Your task to perform on an android device: Is it going to rain tomorrow? Image 0: 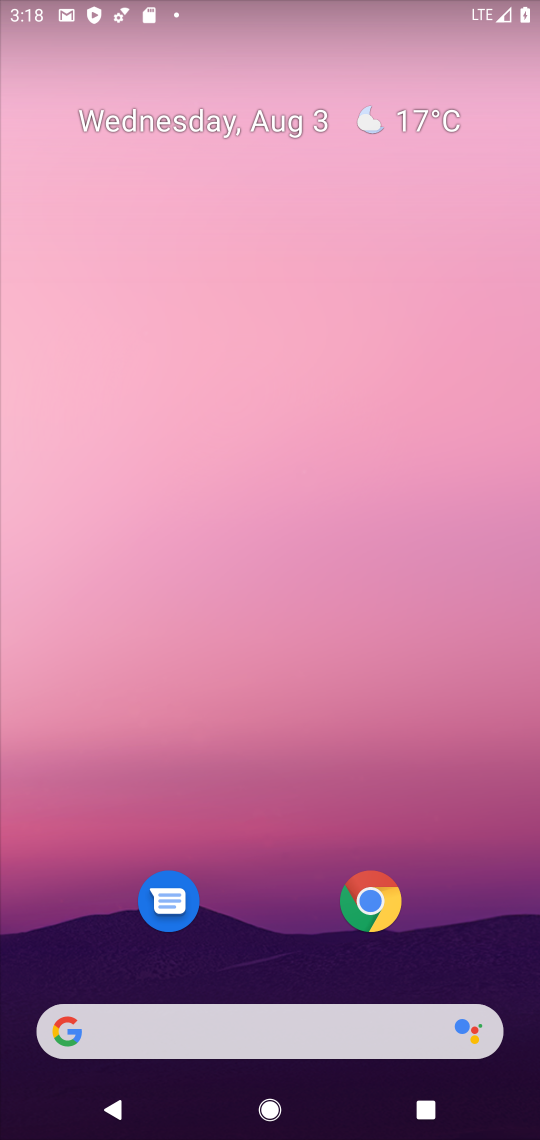
Step 0: drag from (144, 966) to (189, 436)
Your task to perform on an android device: Is it going to rain tomorrow? Image 1: 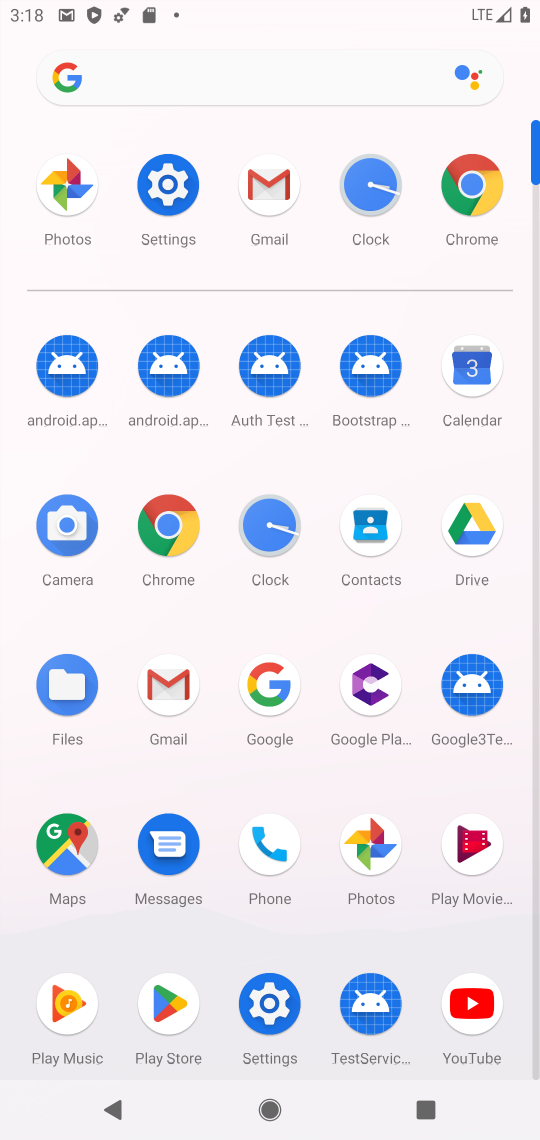
Step 1: click (468, 176)
Your task to perform on an android device: Is it going to rain tomorrow? Image 2: 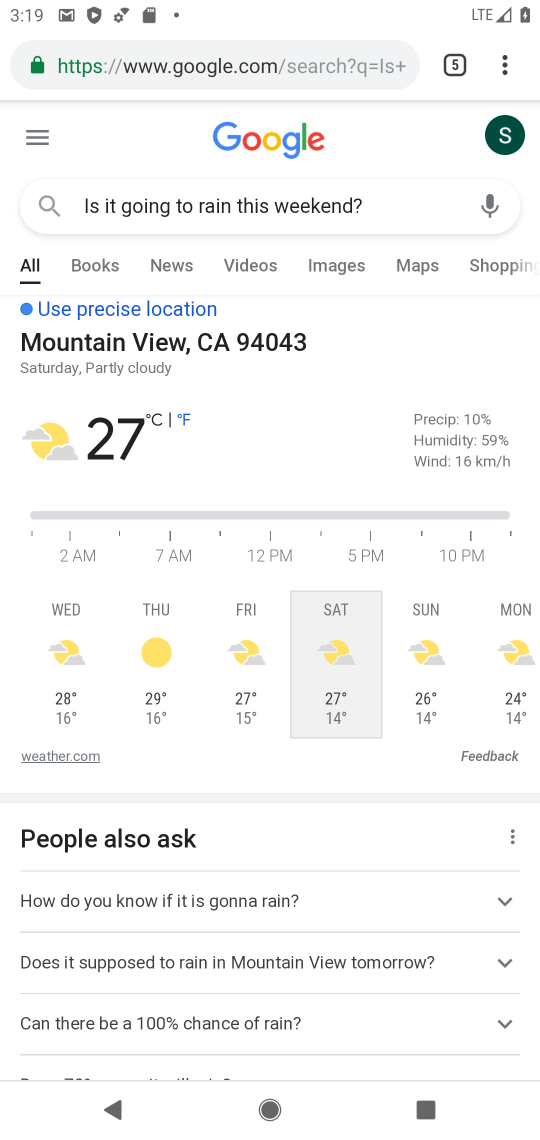
Step 2: click (409, 197)
Your task to perform on an android device: Is it going to rain tomorrow? Image 3: 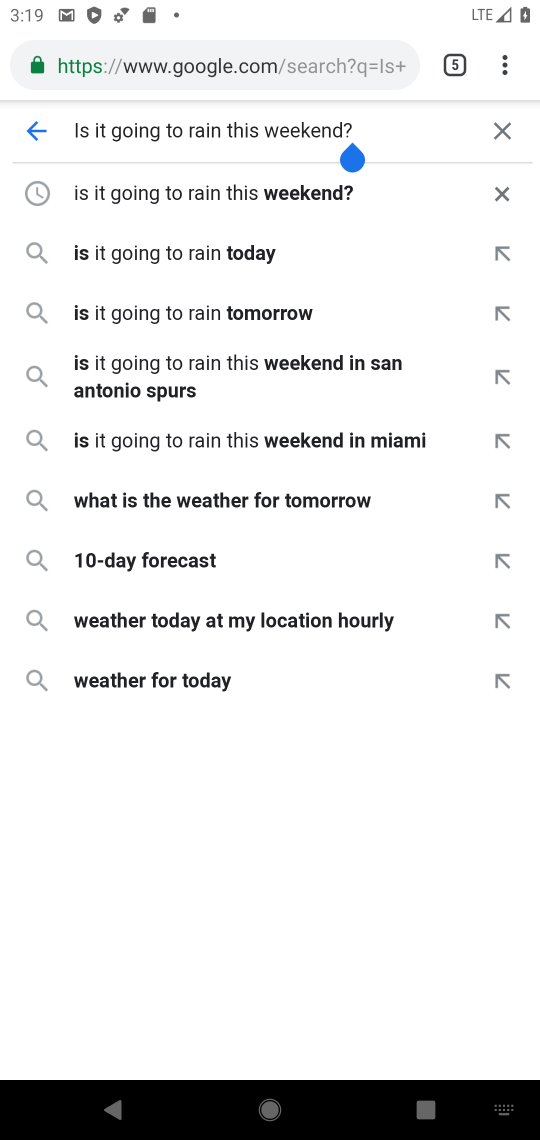
Step 3: click (508, 59)
Your task to perform on an android device: Is it going to rain tomorrow? Image 4: 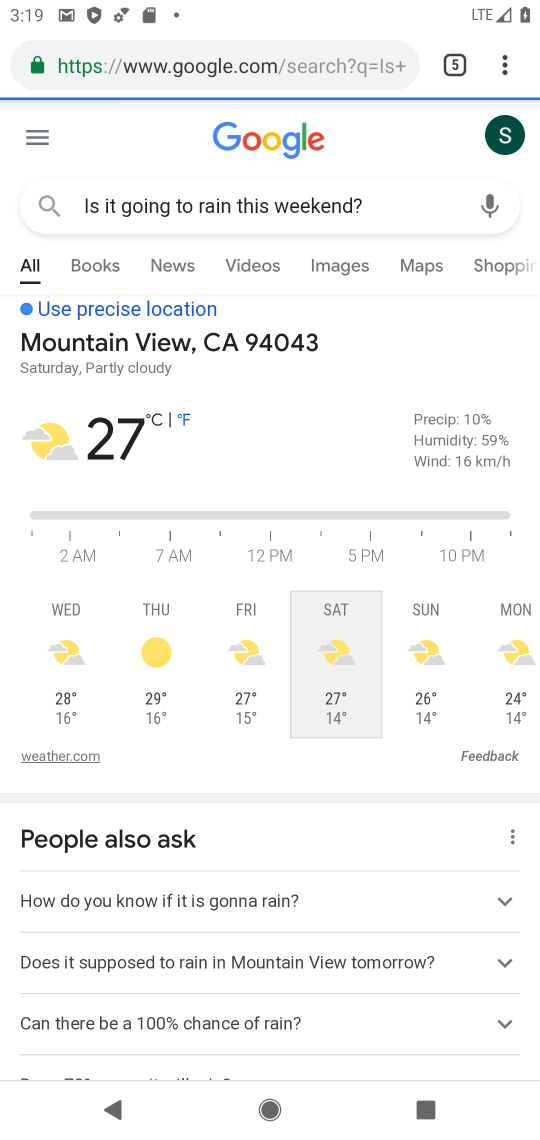
Step 4: click (502, 56)
Your task to perform on an android device: Is it going to rain tomorrow? Image 5: 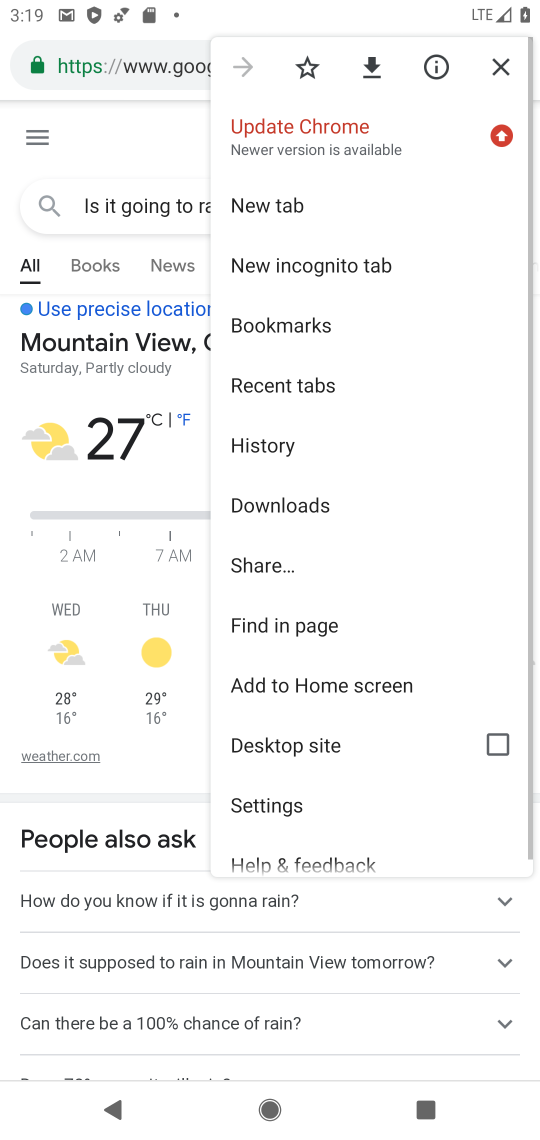
Step 5: click (262, 197)
Your task to perform on an android device: Is it going to rain tomorrow? Image 6: 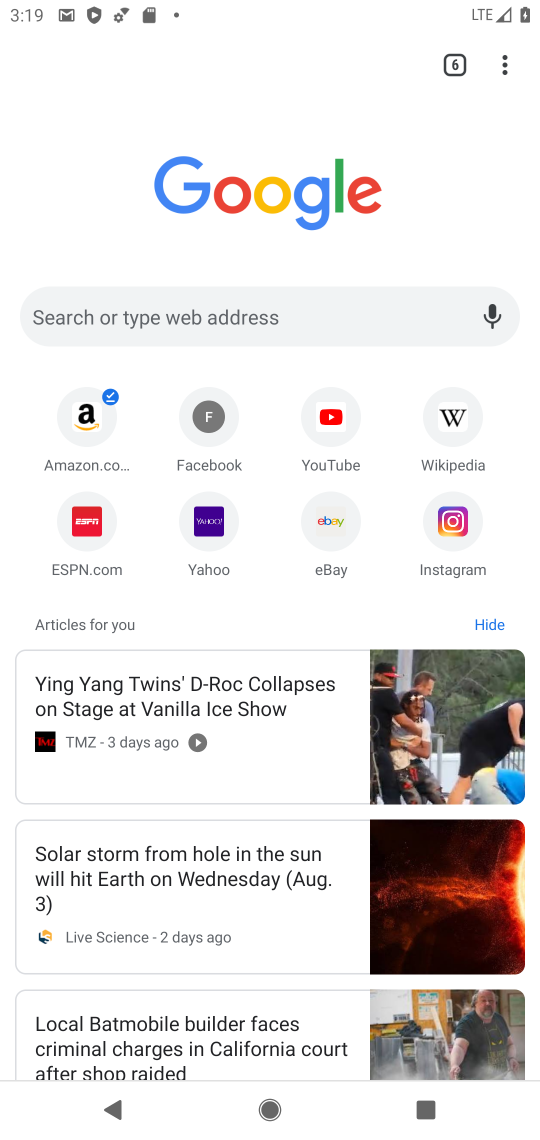
Step 6: click (298, 293)
Your task to perform on an android device: Is it going to rain tomorrow? Image 7: 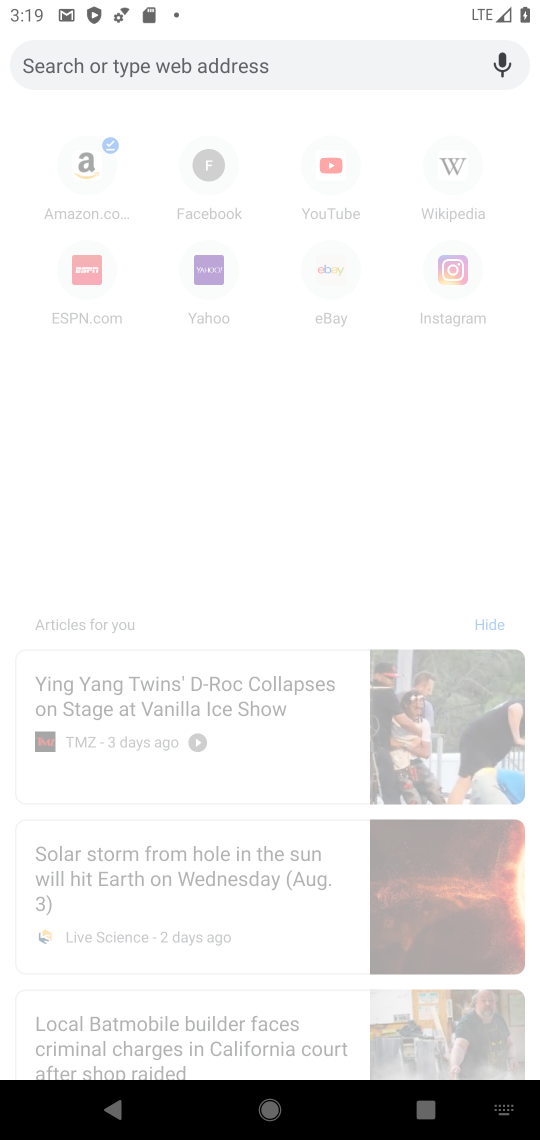
Step 7: type "Is it going to rain tomorrow? "
Your task to perform on an android device: Is it going to rain tomorrow? Image 8: 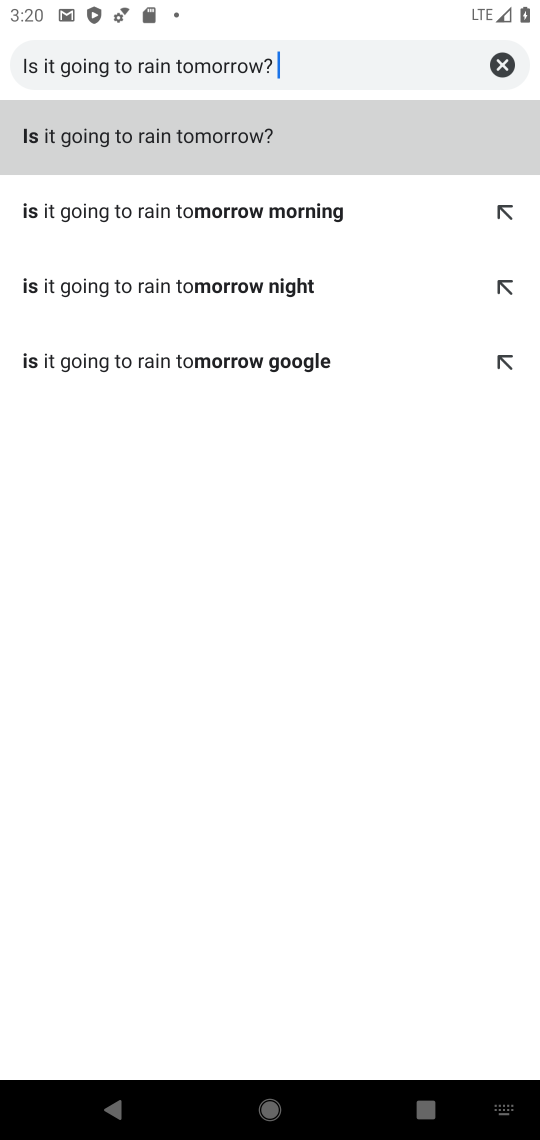
Step 8: click (304, 137)
Your task to perform on an android device: Is it going to rain tomorrow? Image 9: 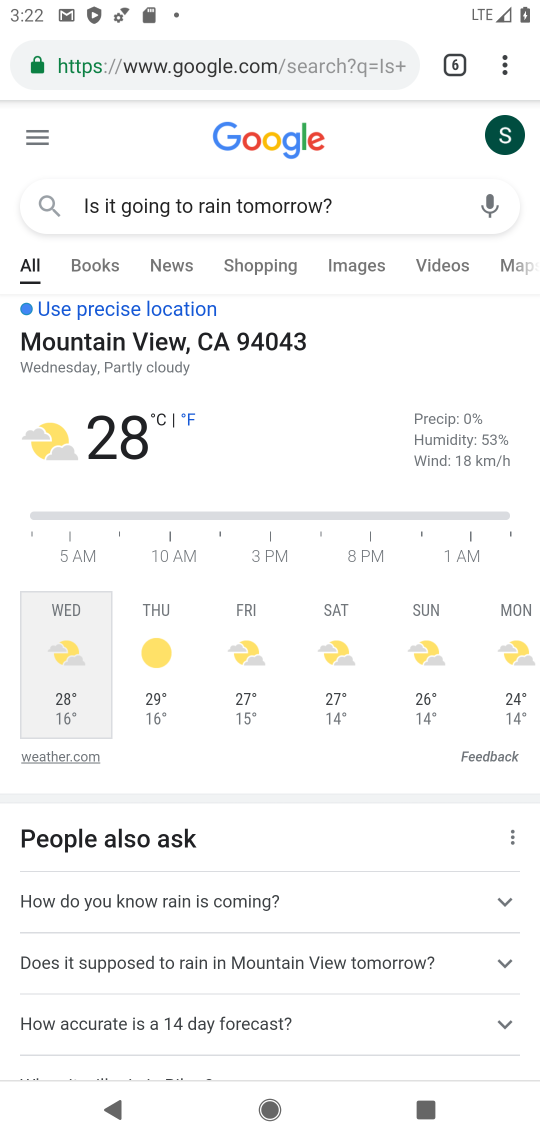
Step 9: task complete